Your task to perform on an android device: Turn on the flashlight Image 0: 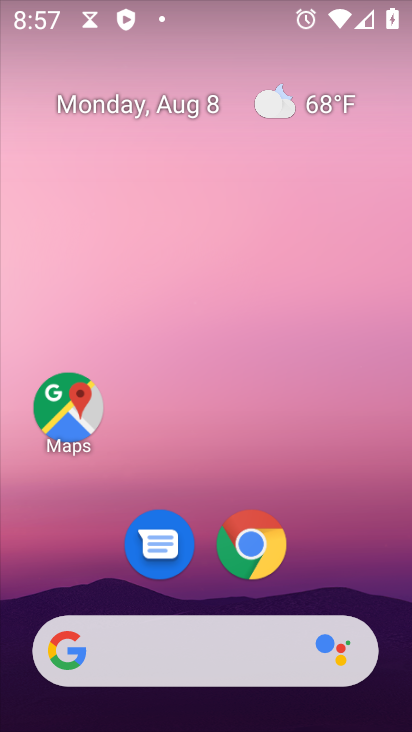
Step 0: press home button
Your task to perform on an android device: Turn on the flashlight Image 1: 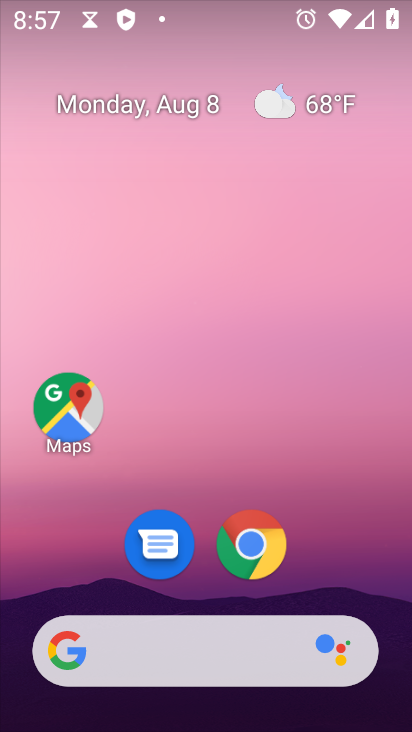
Step 1: drag from (316, 589) to (303, 25)
Your task to perform on an android device: Turn on the flashlight Image 2: 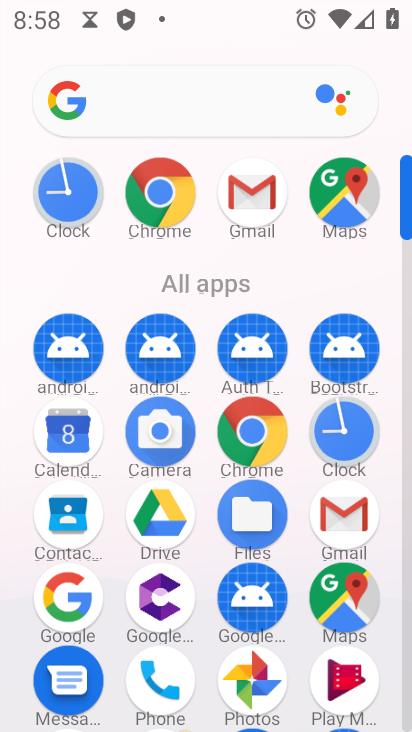
Step 2: drag from (207, 638) to (218, 186)
Your task to perform on an android device: Turn on the flashlight Image 3: 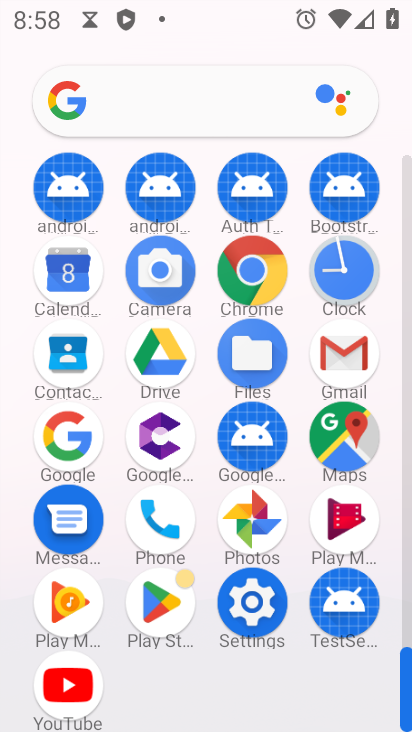
Step 3: click (250, 593)
Your task to perform on an android device: Turn on the flashlight Image 4: 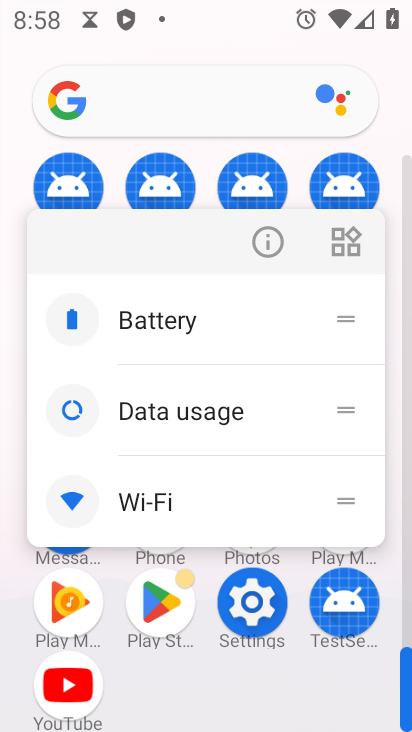
Step 4: click (246, 600)
Your task to perform on an android device: Turn on the flashlight Image 5: 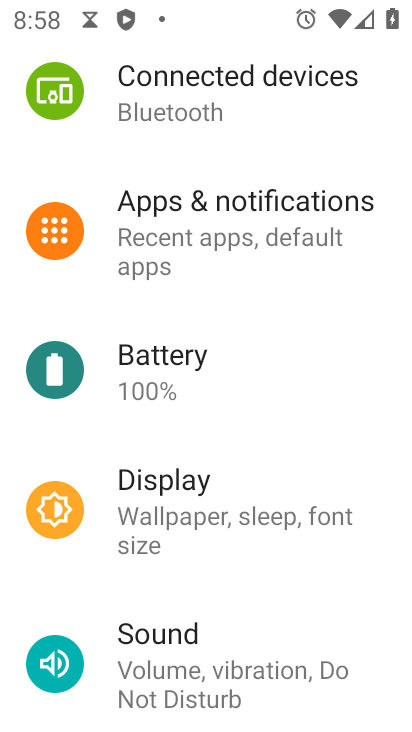
Step 5: drag from (242, 157) to (206, 612)
Your task to perform on an android device: Turn on the flashlight Image 6: 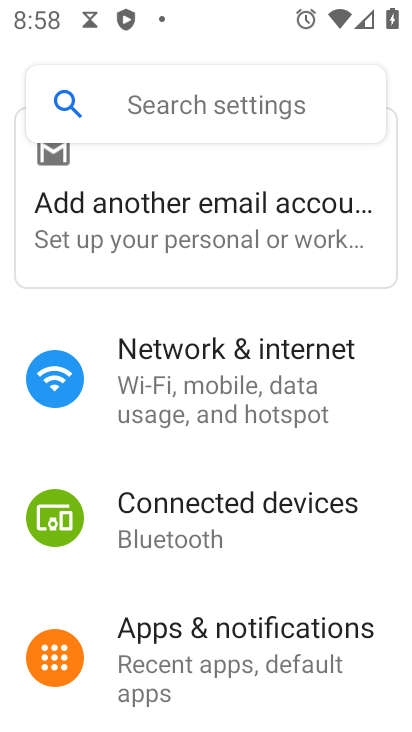
Step 6: click (161, 110)
Your task to perform on an android device: Turn on the flashlight Image 7: 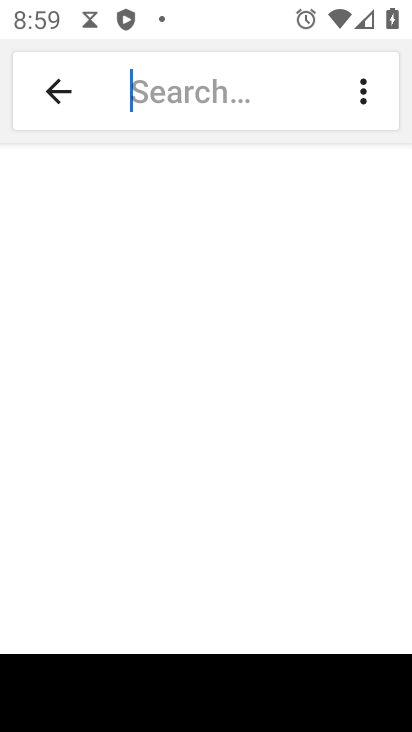
Step 7: type "flashlight"
Your task to perform on an android device: Turn on the flashlight Image 8: 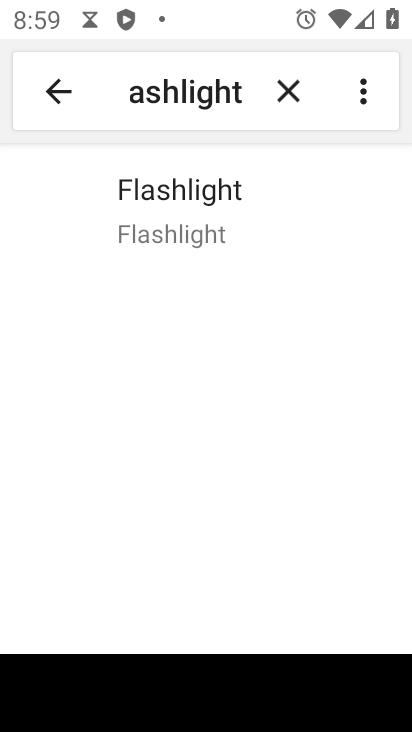
Step 8: click (160, 216)
Your task to perform on an android device: Turn on the flashlight Image 9: 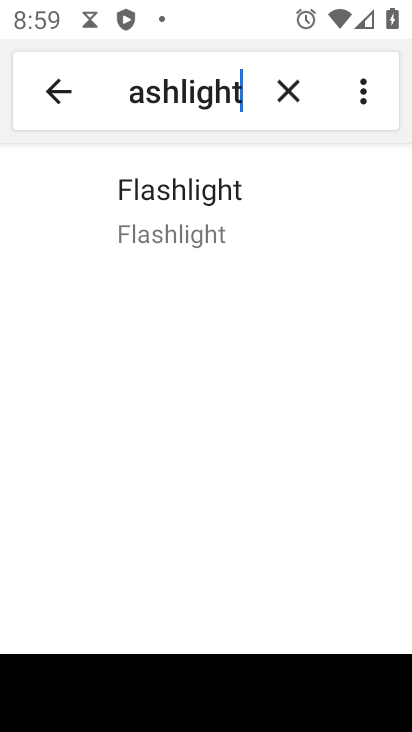
Step 9: click (194, 224)
Your task to perform on an android device: Turn on the flashlight Image 10: 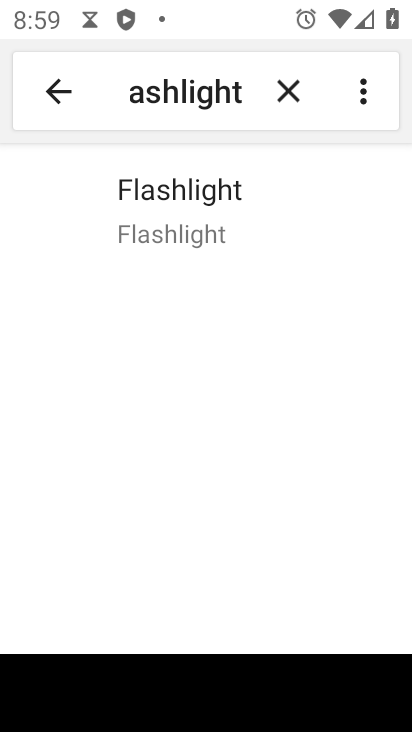
Step 10: task complete